Your task to perform on an android device: set default search engine in the chrome app Image 0: 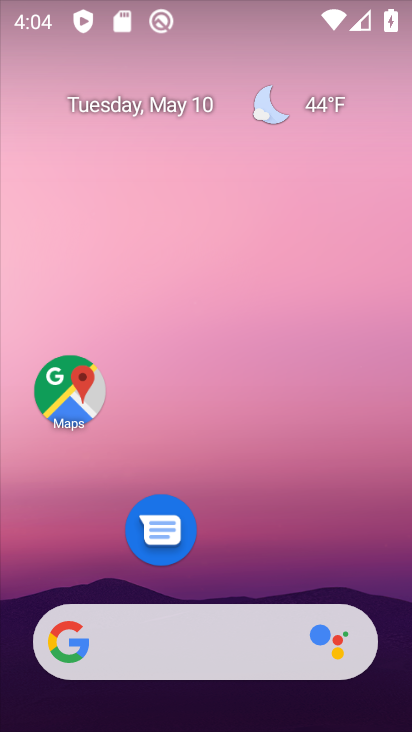
Step 0: drag from (293, 564) to (315, 131)
Your task to perform on an android device: set default search engine in the chrome app Image 1: 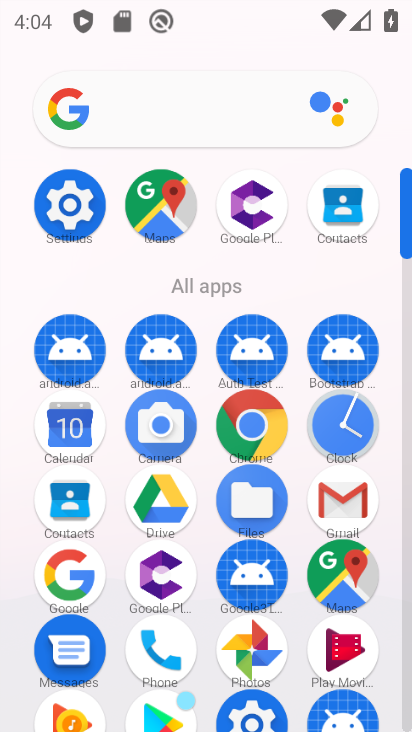
Step 1: click (261, 430)
Your task to perform on an android device: set default search engine in the chrome app Image 2: 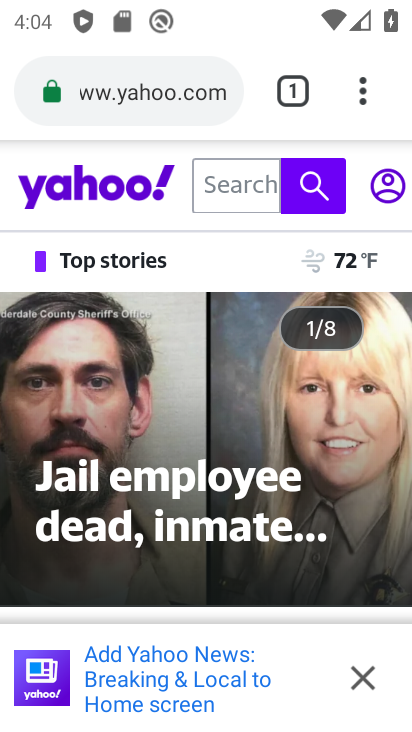
Step 2: click (368, 93)
Your task to perform on an android device: set default search engine in the chrome app Image 3: 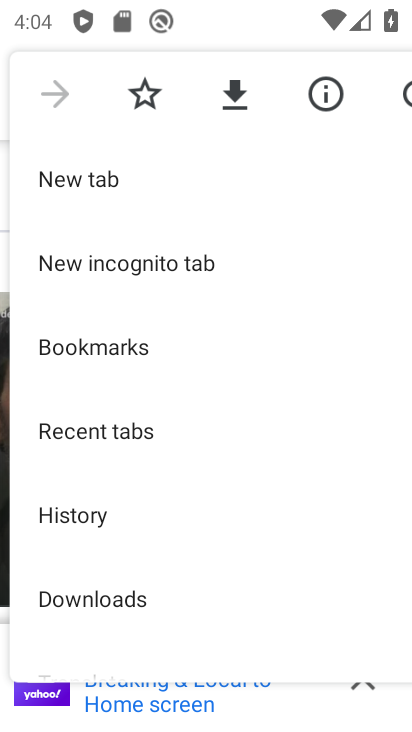
Step 3: drag from (161, 603) to (282, 78)
Your task to perform on an android device: set default search engine in the chrome app Image 4: 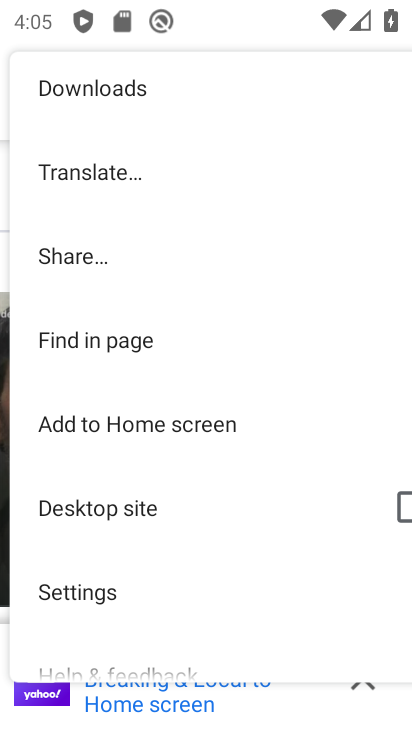
Step 4: click (96, 597)
Your task to perform on an android device: set default search engine in the chrome app Image 5: 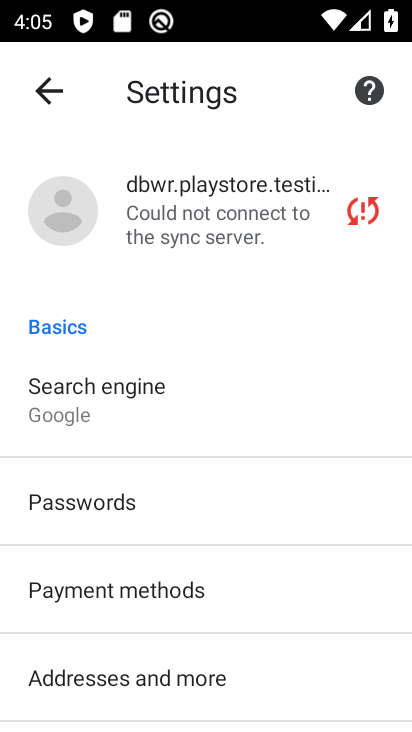
Step 5: click (91, 385)
Your task to perform on an android device: set default search engine in the chrome app Image 6: 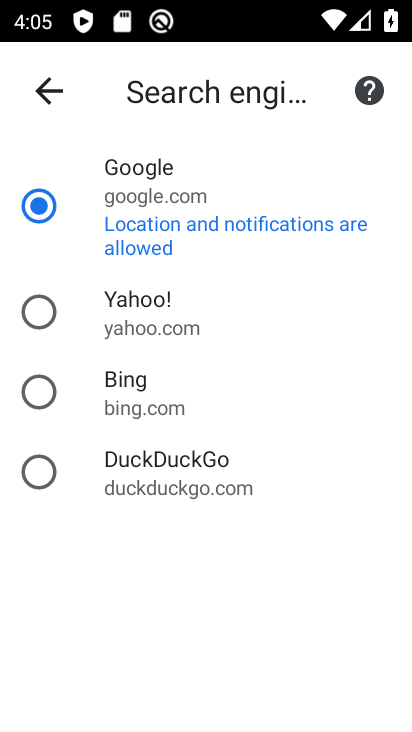
Step 6: click (144, 308)
Your task to perform on an android device: set default search engine in the chrome app Image 7: 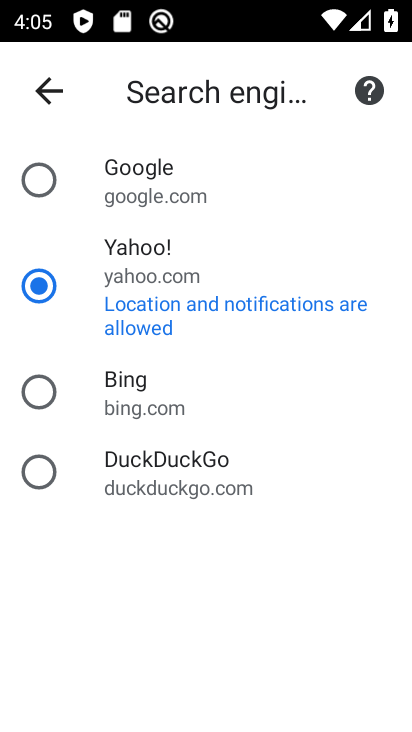
Step 7: task complete